Your task to perform on an android device: Toggle the flashlight Image 0: 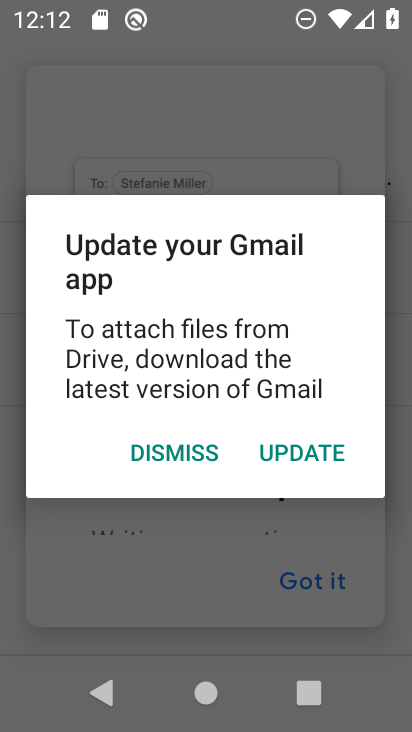
Step 0: press home button
Your task to perform on an android device: Toggle the flashlight Image 1: 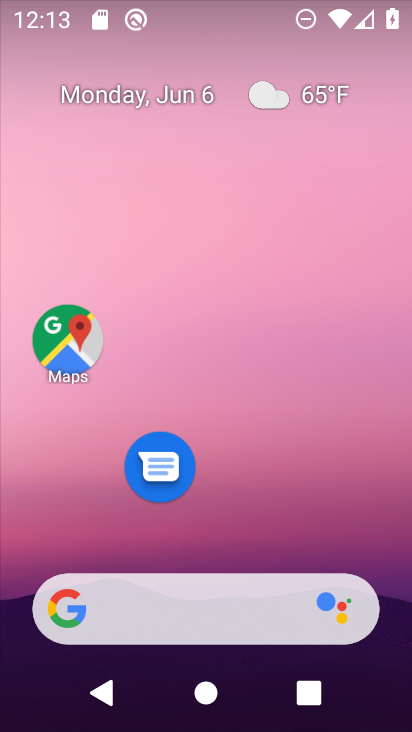
Step 1: task complete